Your task to perform on an android device: Go to Amazon Image 0: 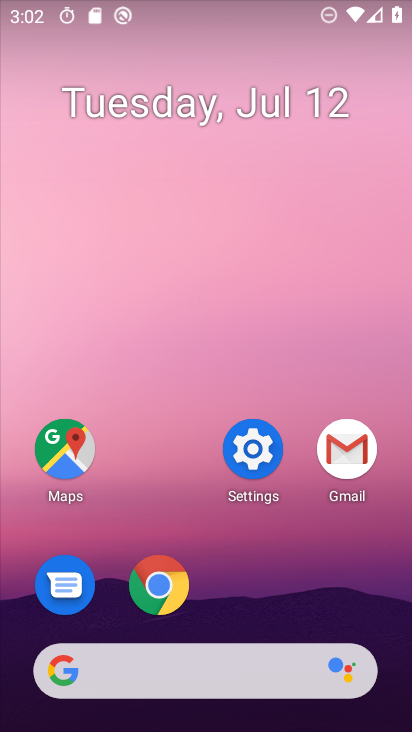
Step 0: click (153, 584)
Your task to perform on an android device: Go to Amazon Image 1: 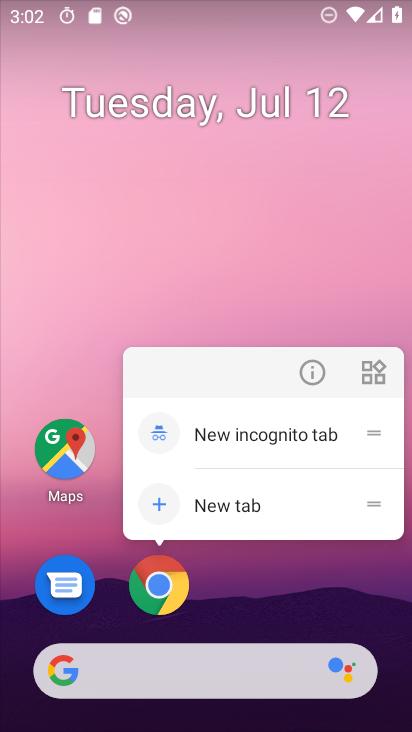
Step 1: click (146, 574)
Your task to perform on an android device: Go to Amazon Image 2: 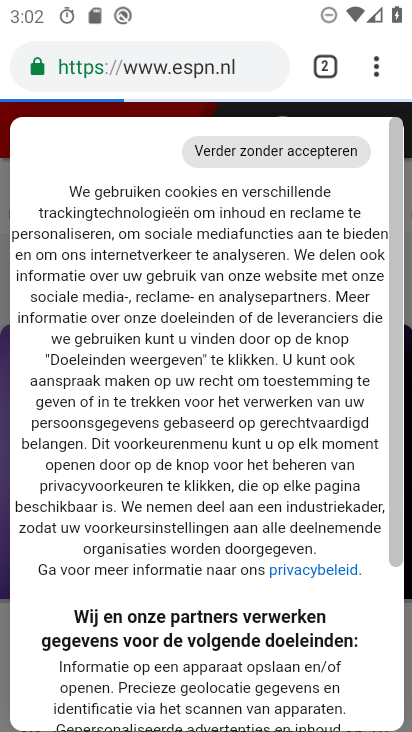
Step 2: click (245, 66)
Your task to perform on an android device: Go to Amazon Image 3: 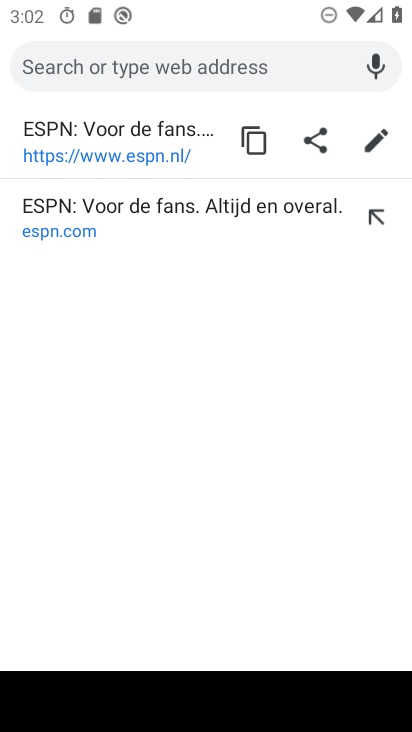
Step 3: type "Amazon"
Your task to perform on an android device: Go to Amazon Image 4: 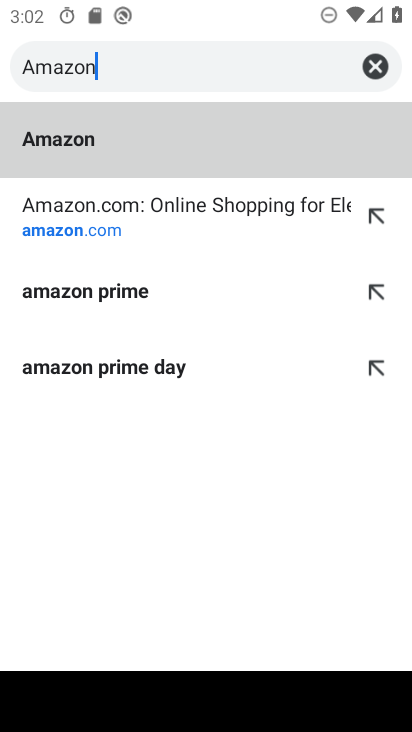
Step 4: click (51, 139)
Your task to perform on an android device: Go to Amazon Image 5: 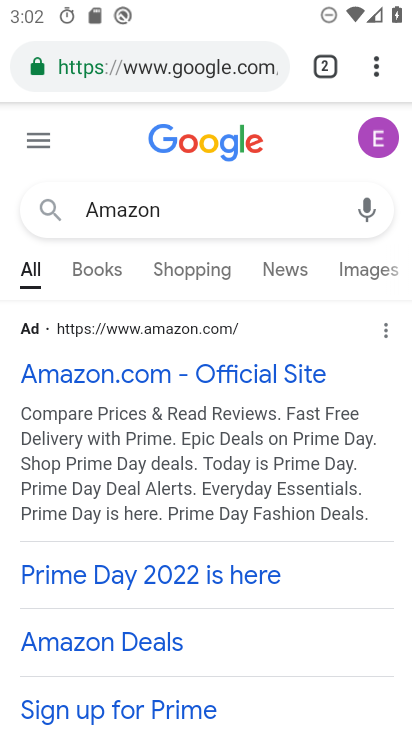
Step 5: task complete